Your task to perform on an android device: Clear the shopping cart on ebay. Image 0: 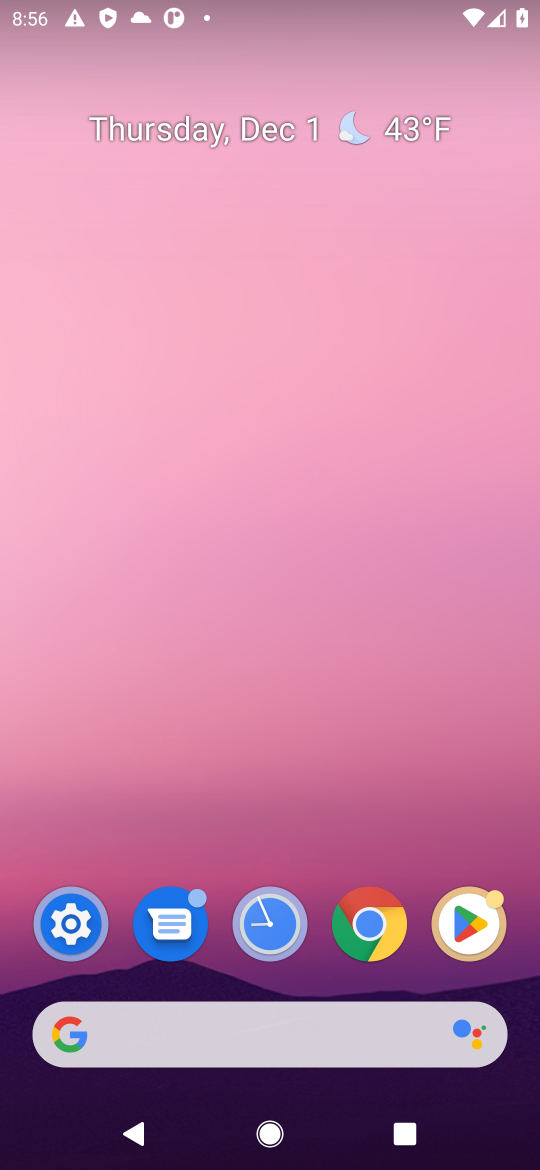
Step 0: click (257, 1055)
Your task to perform on an android device: Clear the shopping cart on ebay. Image 1: 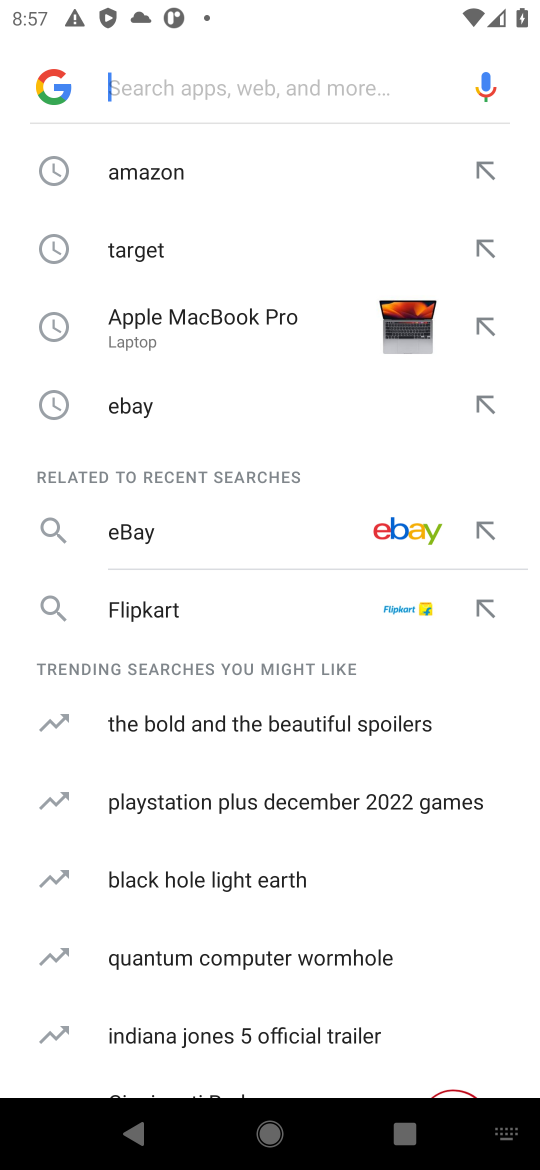
Step 1: click (213, 538)
Your task to perform on an android device: Clear the shopping cart on ebay. Image 2: 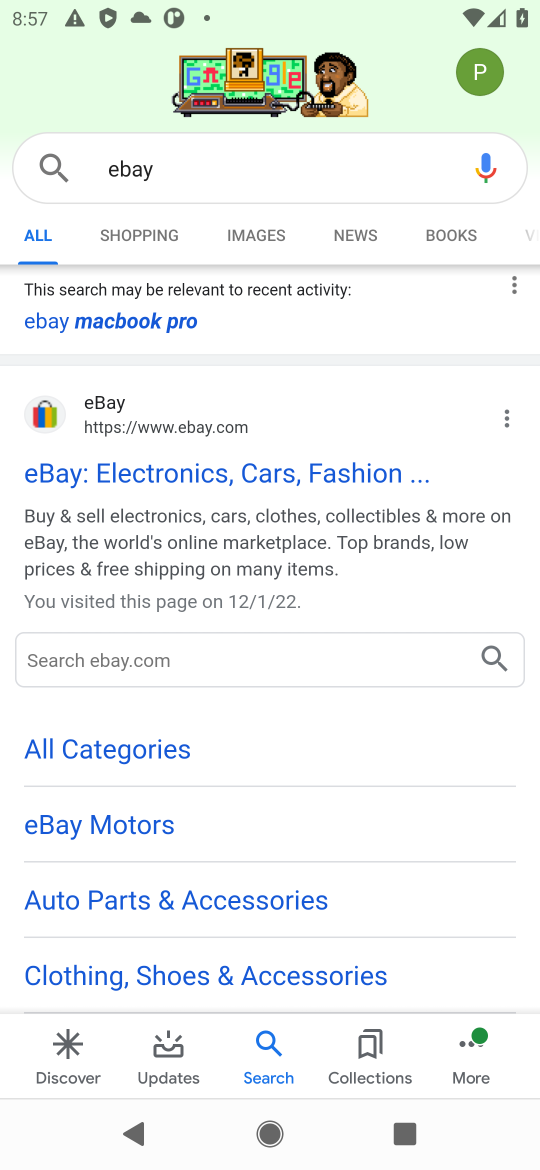
Step 2: click (83, 454)
Your task to perform on an android device: Clear the shopping cart on ebay. Image 3: 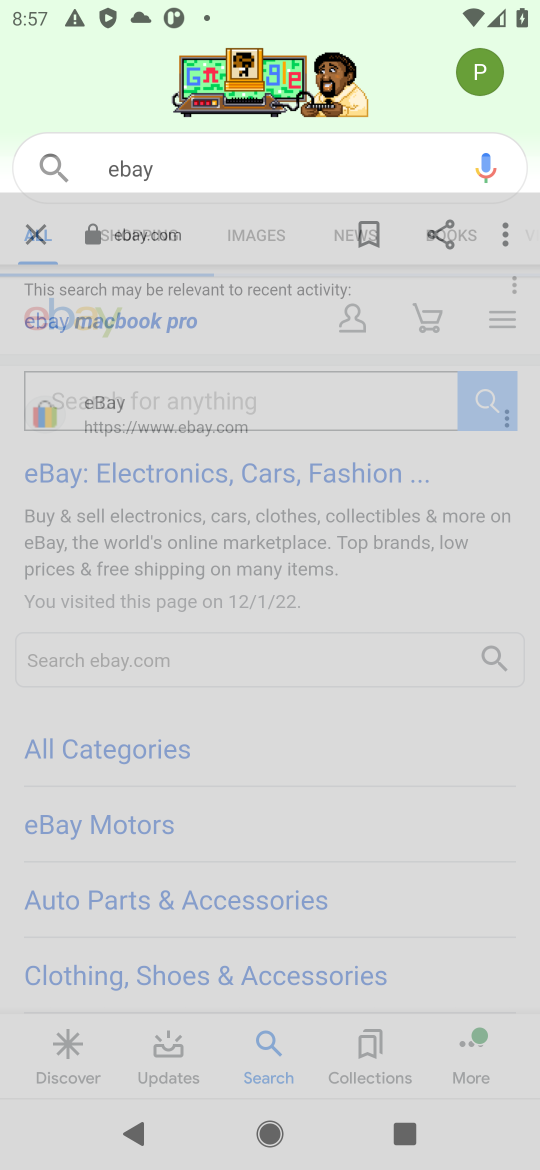
Step 3: task complete